Your task to perform on an android device: turn off data saver in the chrome app Image 0: 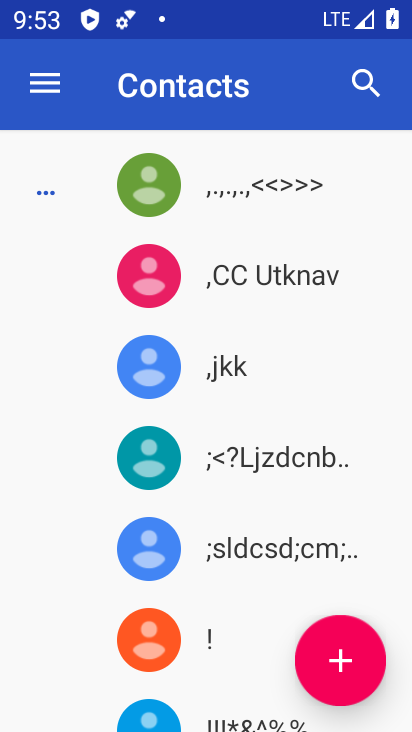
Step 0: press home button
Your task to perform on an android device: turn off data saver in the chrome app Image 1: 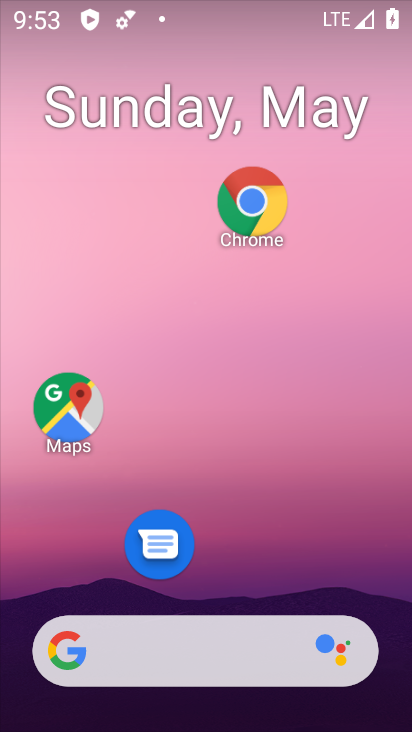
Step 1: click (261, 204)
Your task to perform on an android device: turn off data saver in the chrome app Image 2: 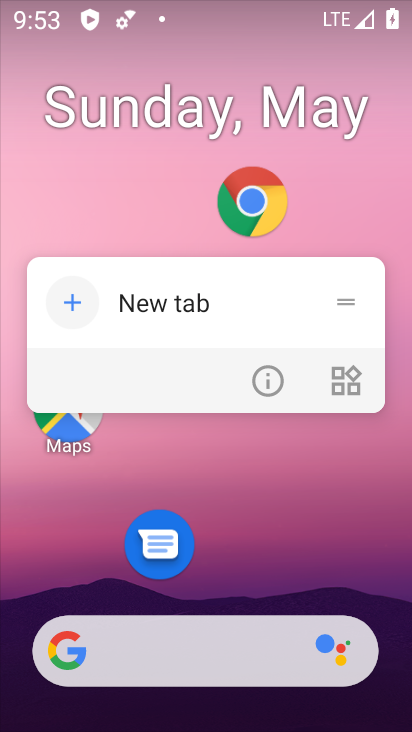
Step 2: click (264, 502)
Your task to perform on an android device: turn off data saver in the chrome app Image 3: 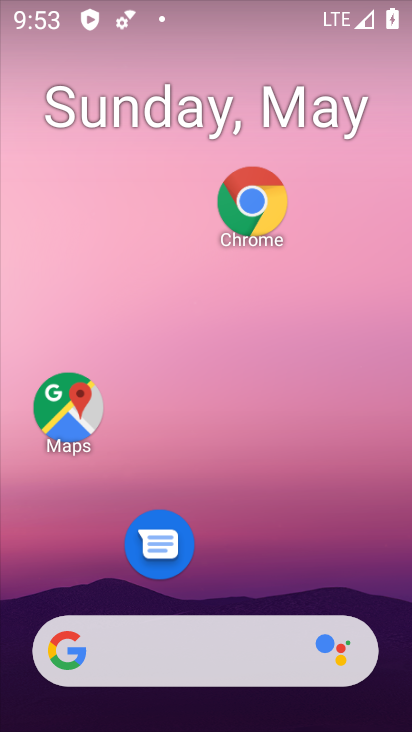
Step 3: click (249, 207)
Your task to perform on an android device: turn off data saver in the chrome app Image 4: 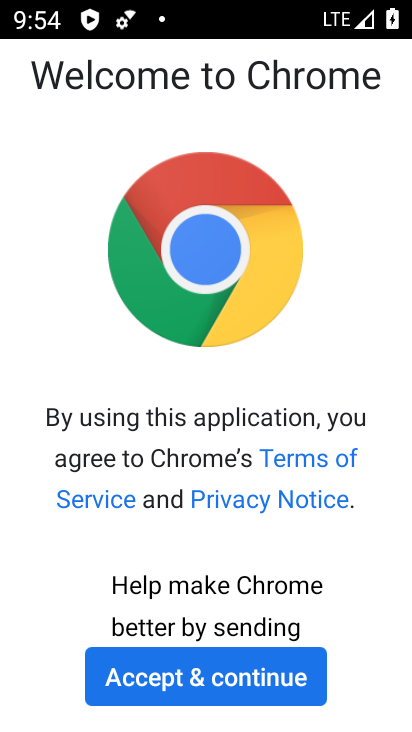
Step 4: click (239, 684)
Your task to perform on an android device: turn off data saver in the chrome app Image 5: 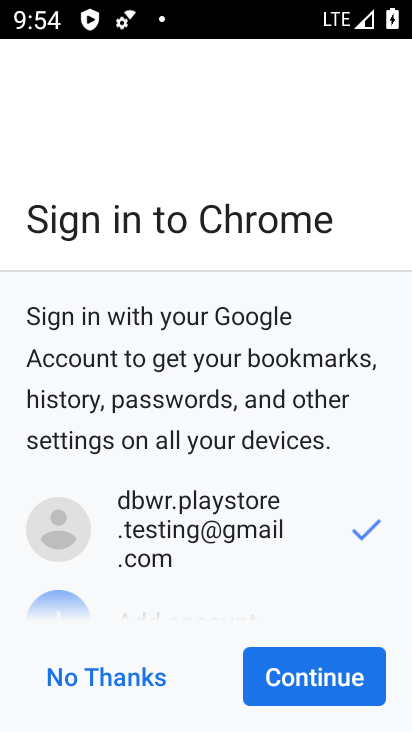
Step 5: click (297, 678)
Your task to perform on an android device: turn off data saver in the chrome app Image 6: 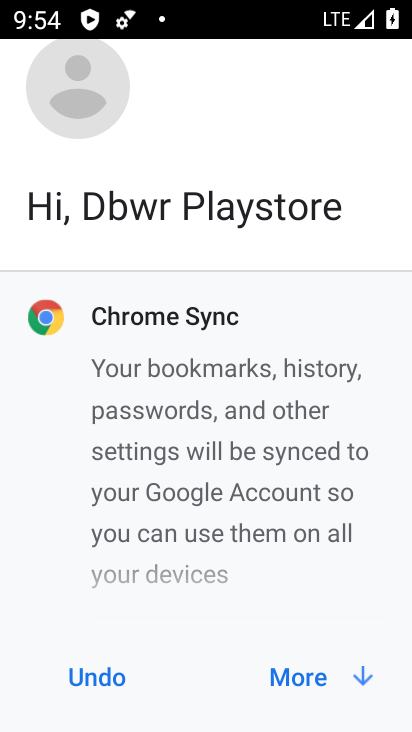
Step 6: click (297, 678)
Your task to perform on an android device: turn off data saver in the chrome app Image 7: 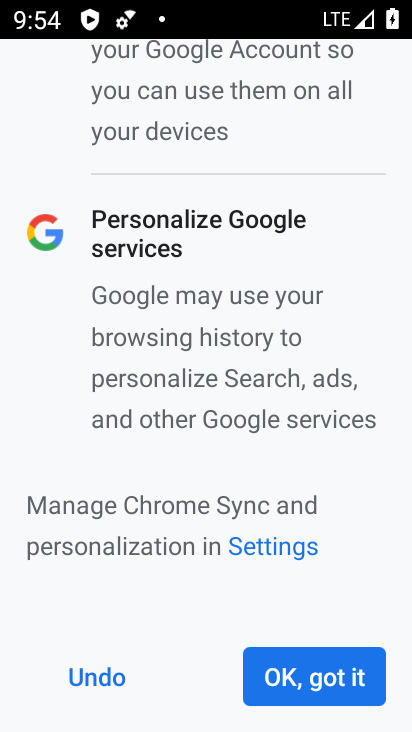
Step 7: click (297, 678)
Your task to perform on an android device: turn off data saver in the chrome app Image 8: 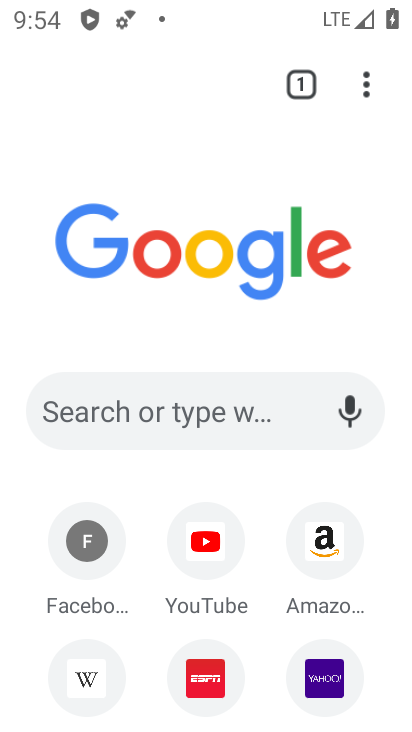
Step 8: click (358, 82)
Your task to perform on an android device: turn off data saver in the chrome app Image 9: 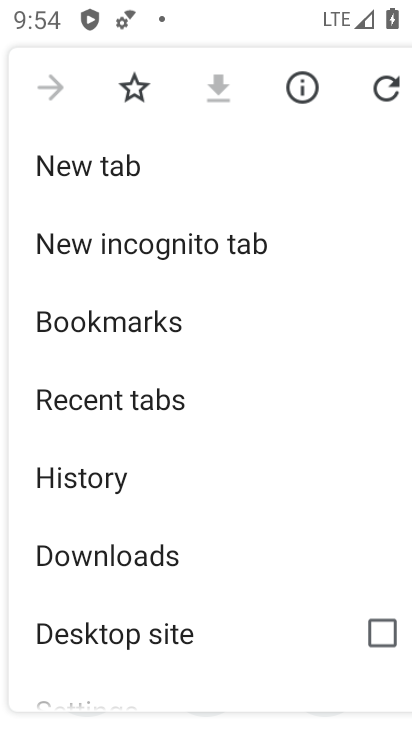
Step 9: drag from (200, 591) to (171, 163)
Your task to perform on an android device: turn off data saver in the chrome app Image 10: 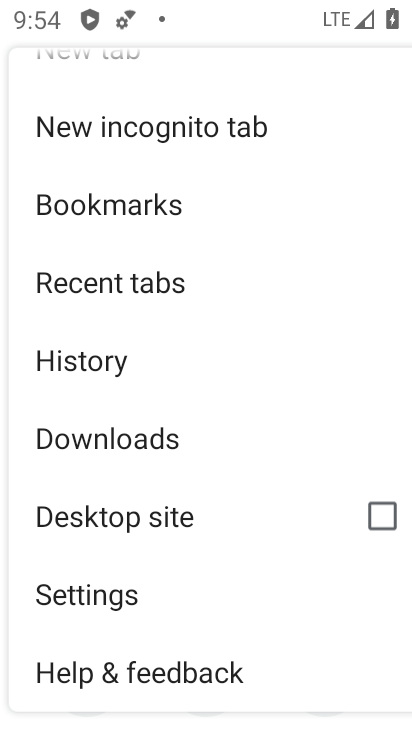
Step 10: click (109, 599)
Your task to perform on an android device: turn off data saver in the chrome app Image 11: 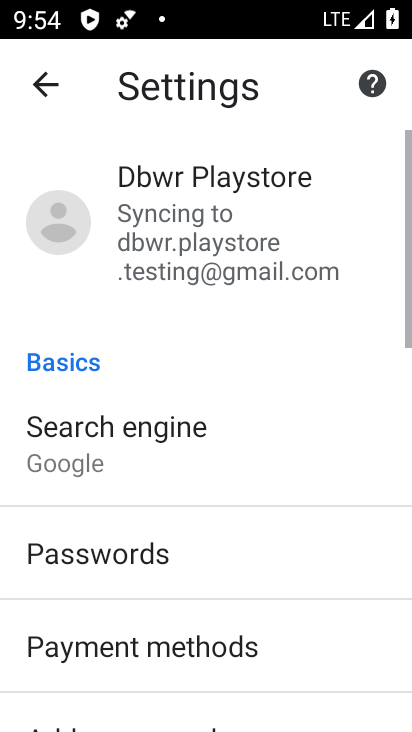
Step 11: drag from (277, 627) to (280, 91)
Your task to perform on an android device: turn off data saver in the chrome app Image 12: 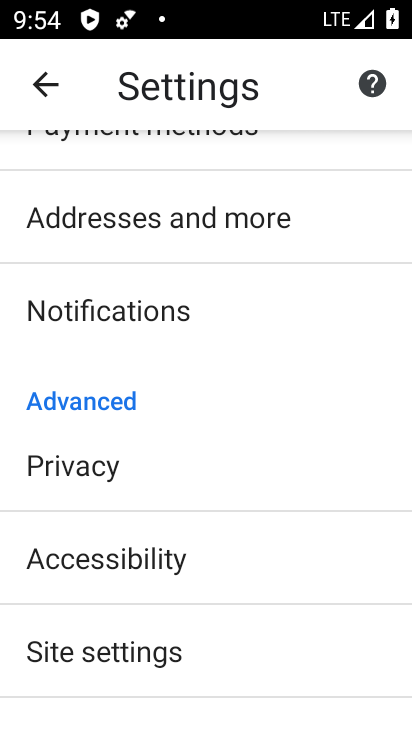
Step 12: drag from (155, 673) to (170, 331)
Your task to perform on an android device: turn off data saver in the chrome app Image 13: 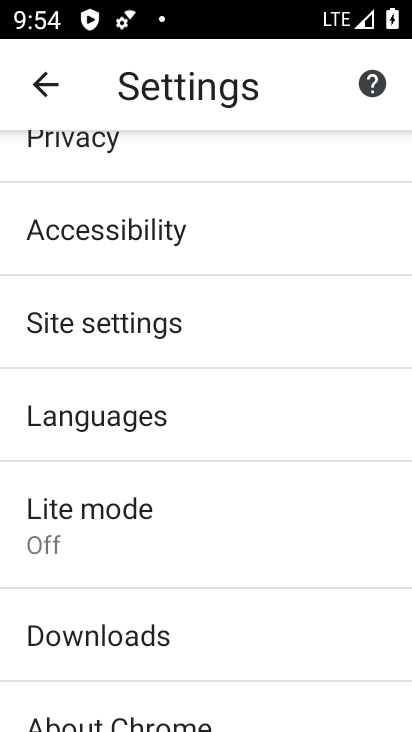
Step 13: click (129, 538)
Your task to perform on an android device: turn off data saver in the chrome app Image 14: 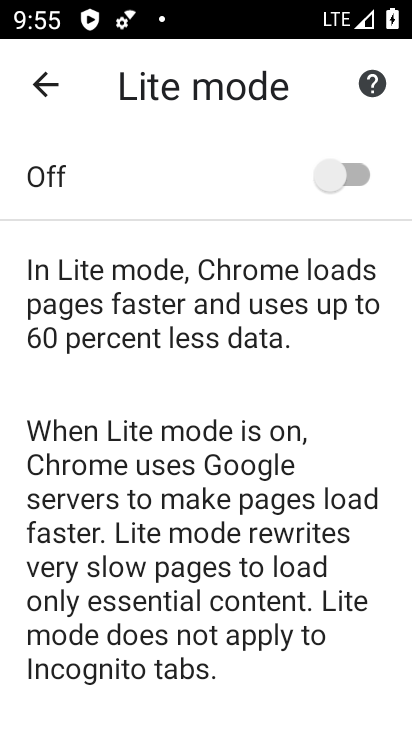
Step 14: task complete